Your task to perform on an android device: turn on javascript in the chrome app Image 0: 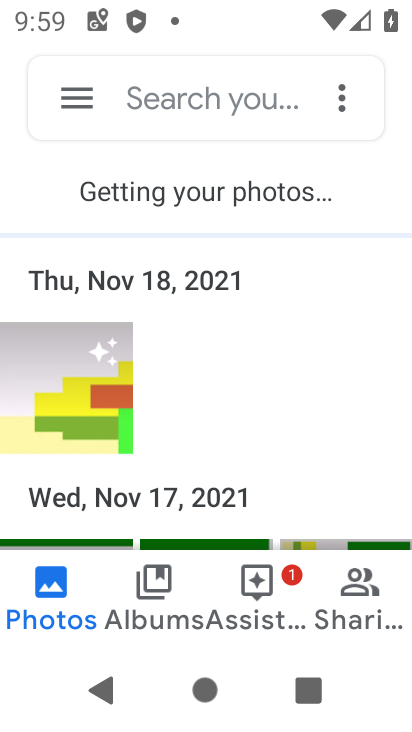
Step 0: press home button
Your task to perform on an android device: turn on javascript in the chrome app Image 1: 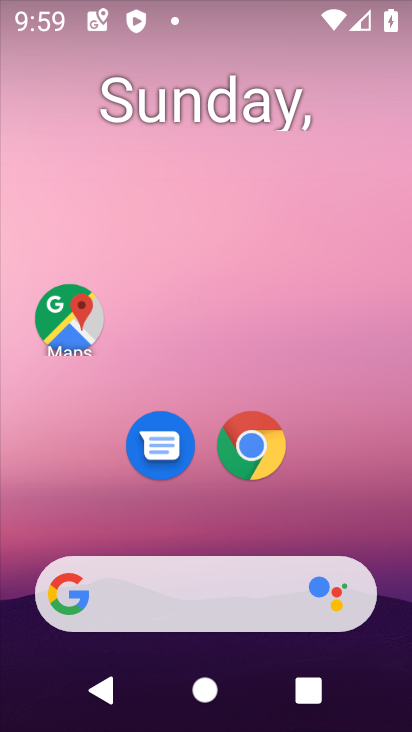
Step 1: drag from (315, 510) to (373, 88)
Your task to perform on an android device: turn on javascript in the chrome app Image 2: 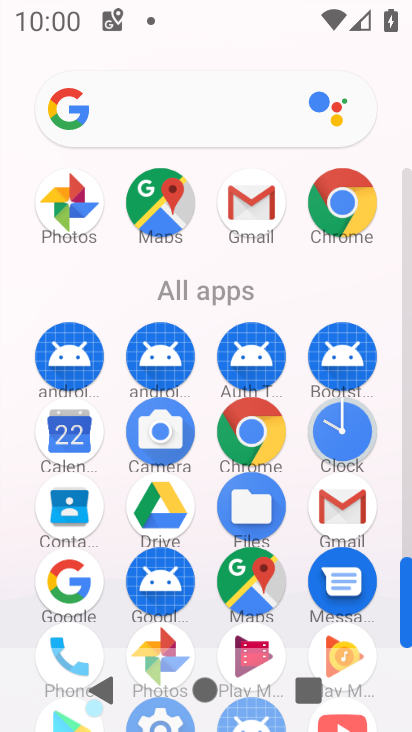
Step 2: click (341, 201)
Your task to perform on an android device: turn on javascript in the chrome app Image 3: 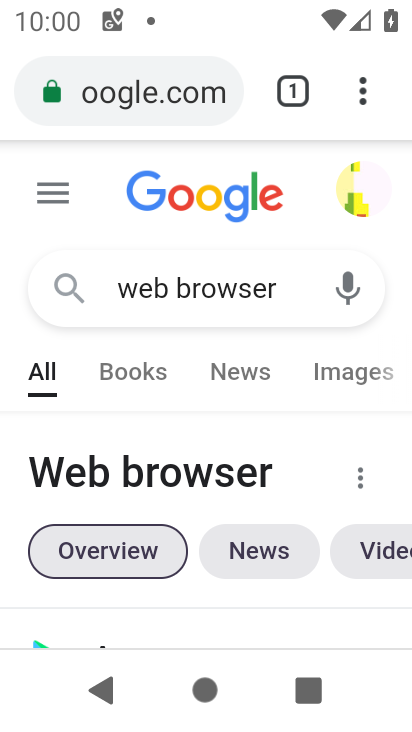
Step 3: drag from (359, 86) to (74, 473)
Your task to perform on an android device: turn on javascript in the chrome app Image 4: 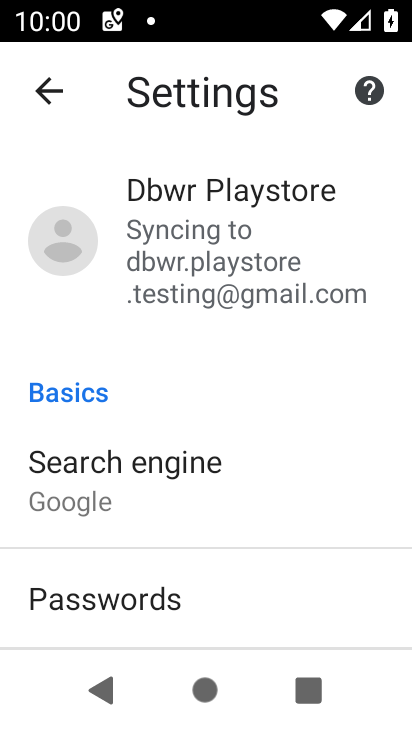
Step 4: drag from (250, 570) to (245, 122)
Your task to perform on an android device: turn on javascript in the chrome app Image 5: 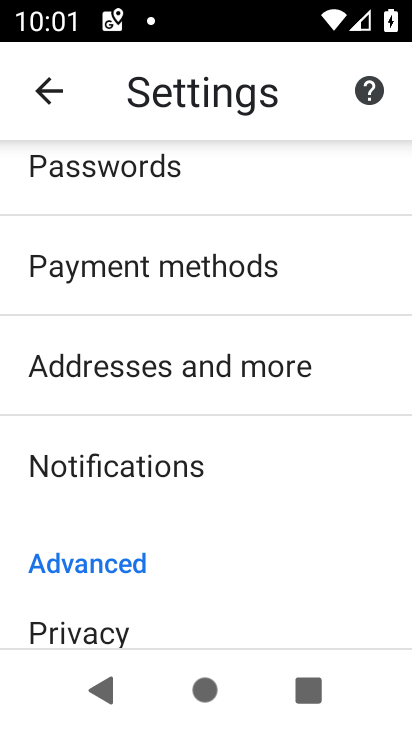
Step 5: drag from (237, 565) to (248, 210)
Your task to perform on an android device: turn on javascript in the chrome app Image 6: 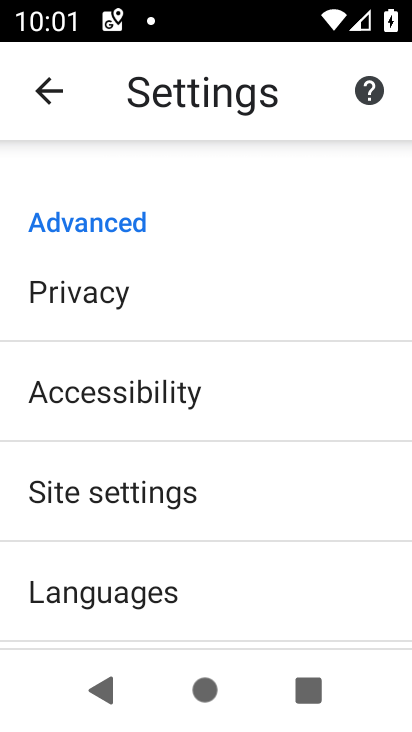
Step 6: drag from (177, 551) to (230, 266)
Your task to perform on an android device: turn on javascript in the chrome app Image 7: 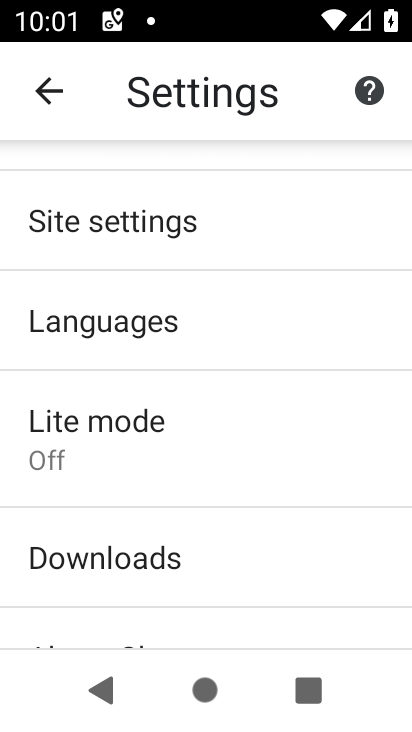
Step 7: click (167, 221)
Your task to perform on an android device: turn on javascript in the chrome app Image 8: 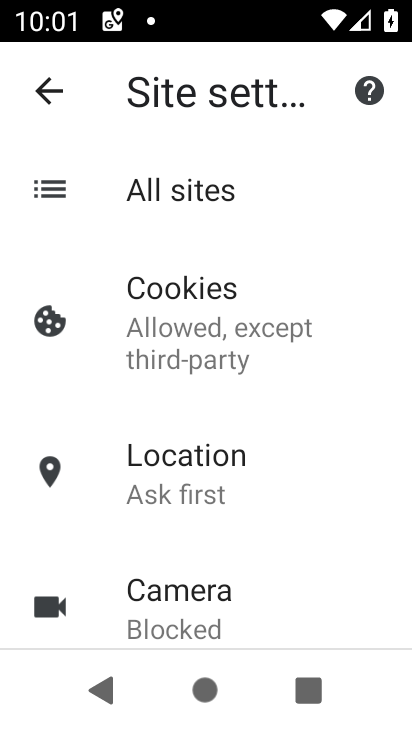
Step 8: drag from (162, 539) to (170, 278)
Your task to perform on an android device: turn on javascript in the chrome app Image 9: 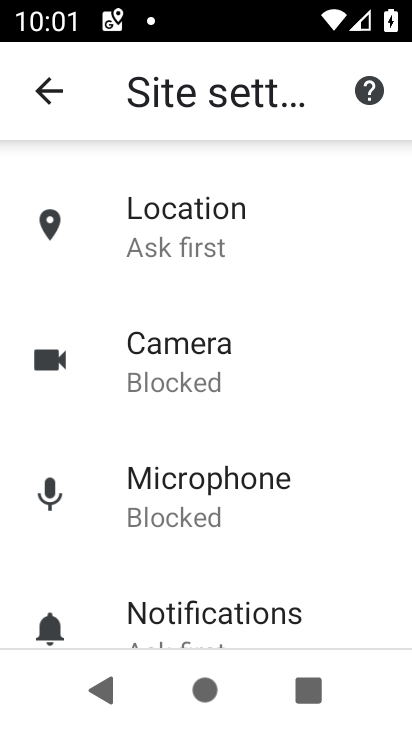
Step 9: drag from (170, 539) to (197, 322)
Your task to perform on an android device: turn on javascript in the chrome app Image 10: 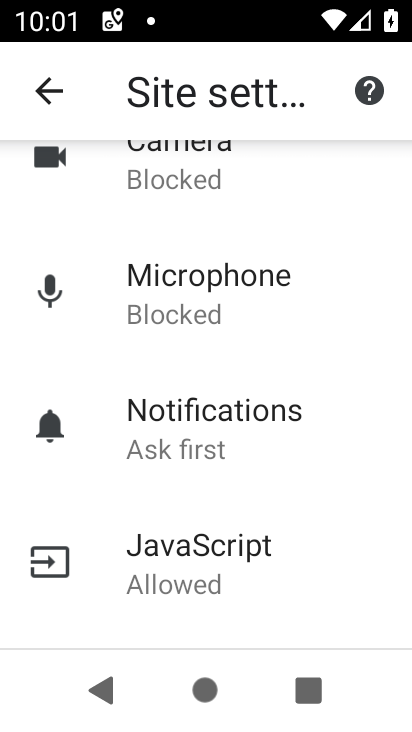
Step 10: click (167, 538)
Your task to perform on an android device: turn on javascript in the chrome app Image 11: 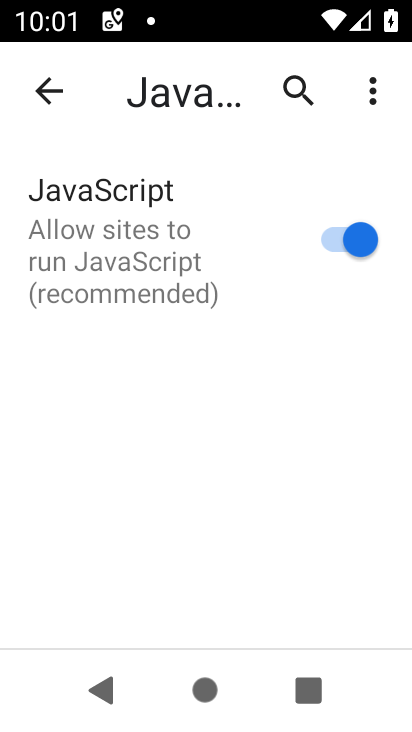
Step 11: task complete